Your task to perform on an android device: set default search engine in the chrome app Image 0: 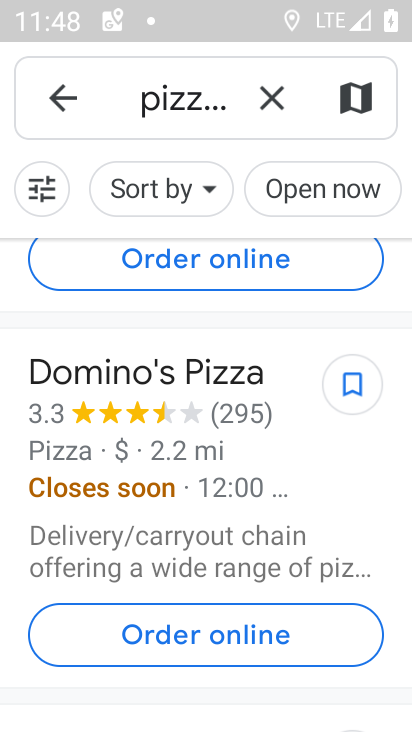
Step 0: press home button
Your task to perform on an android device: set default search engine in the chrome app Image 1: 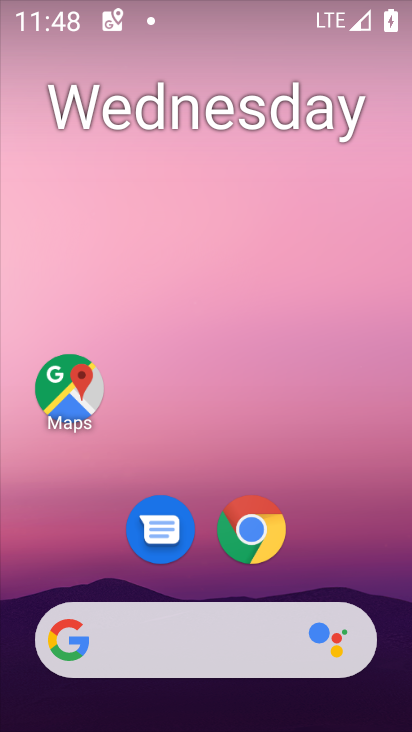
Step 1: click (250, 529)
Your task to perform on an android device: set default search engine in the chrome app Image 2: 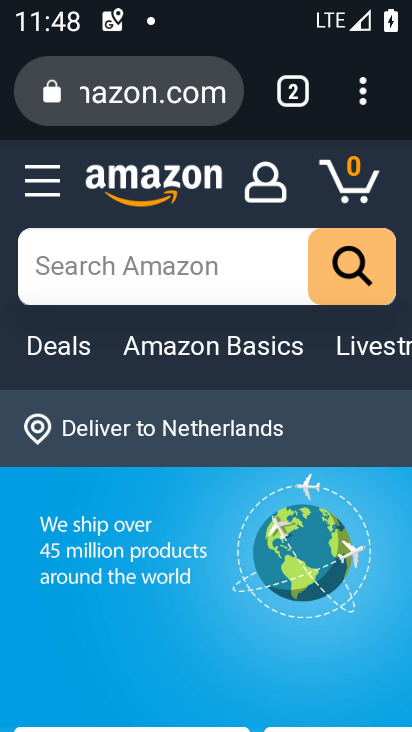
Step 2: click (360, 100)
Your task to perform on an android device: set default search engine in the chrome app Image 3: 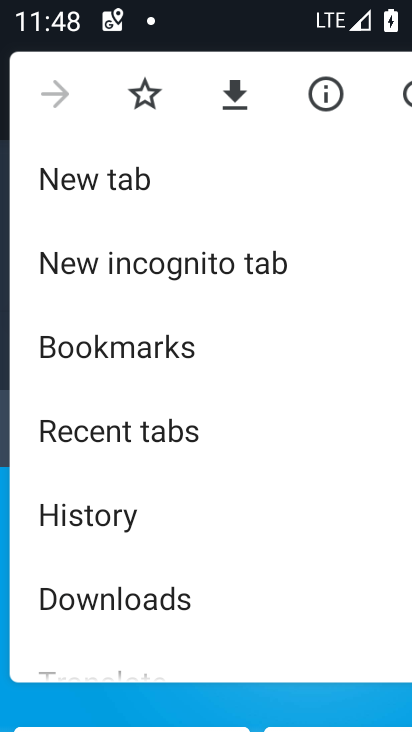
Step 3: drag from (253, 586) to (257, 279)
Your task to perform on an android device: set default search engine in the chrome app Image 4: 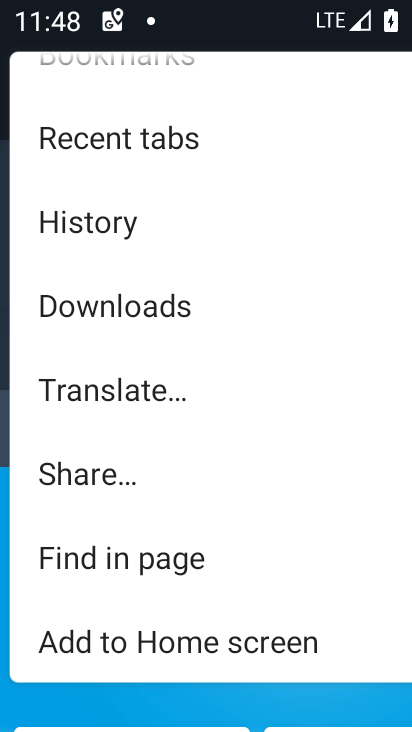
Step 4: drag from (261, 584) to (235, 167)
Your task to perform on an android device: set default search engine in the chrome app Image 5: 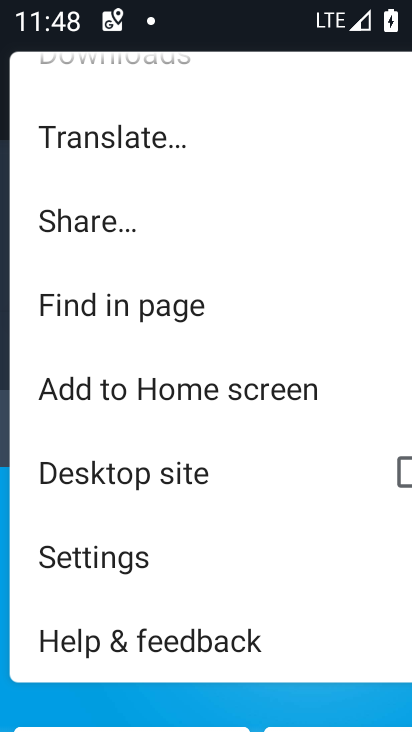
Step 5: click (122, 566)
Your task to perform on an android device: set default search engine in the chrome app Image 6: 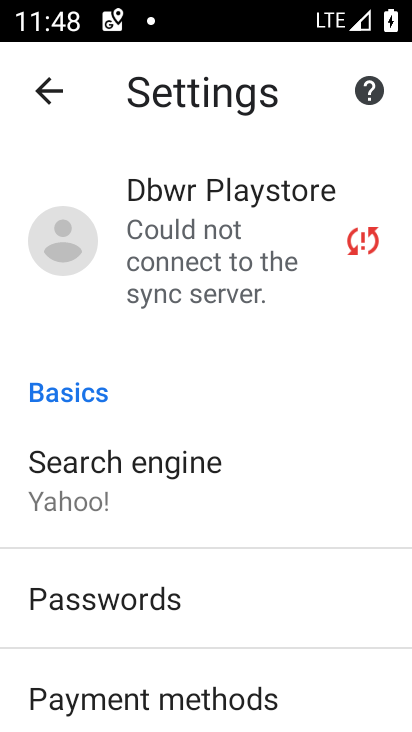
Step 6: click (88, 500)
Your task to perform on an android device: set default search engine in the chrome app Image 7: 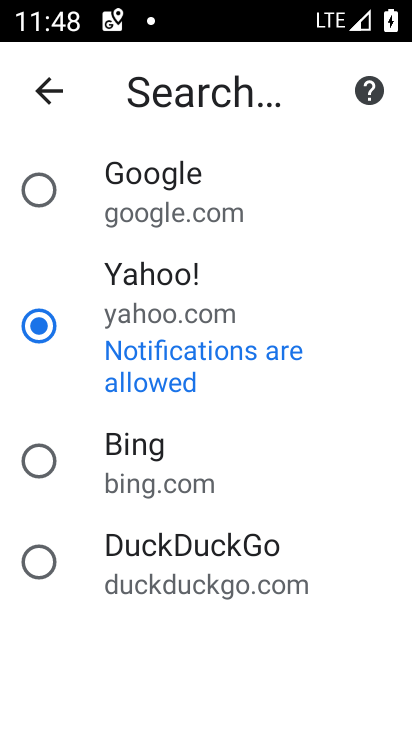
Step 7: click (29, 184)
Your task to perform on an android device: set default search engine in the chrome app Image 8: 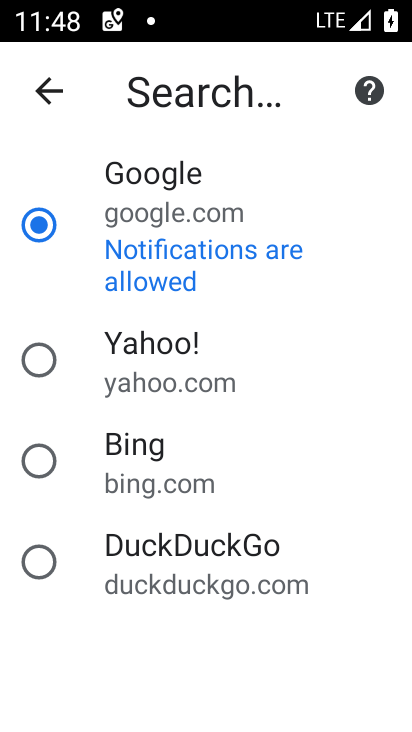
Step 8: task complete